Your task to perform on an android device: Go to settings Image 0: 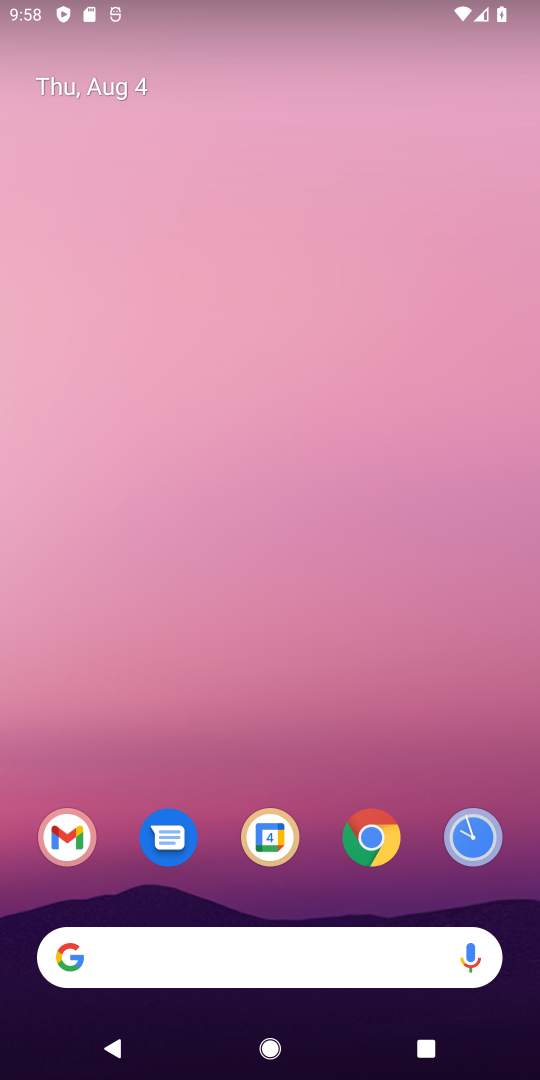
Step 0: drag from (426, 823) to (93, 42)
Your task to perform on an android device: Go to settings Image 1: 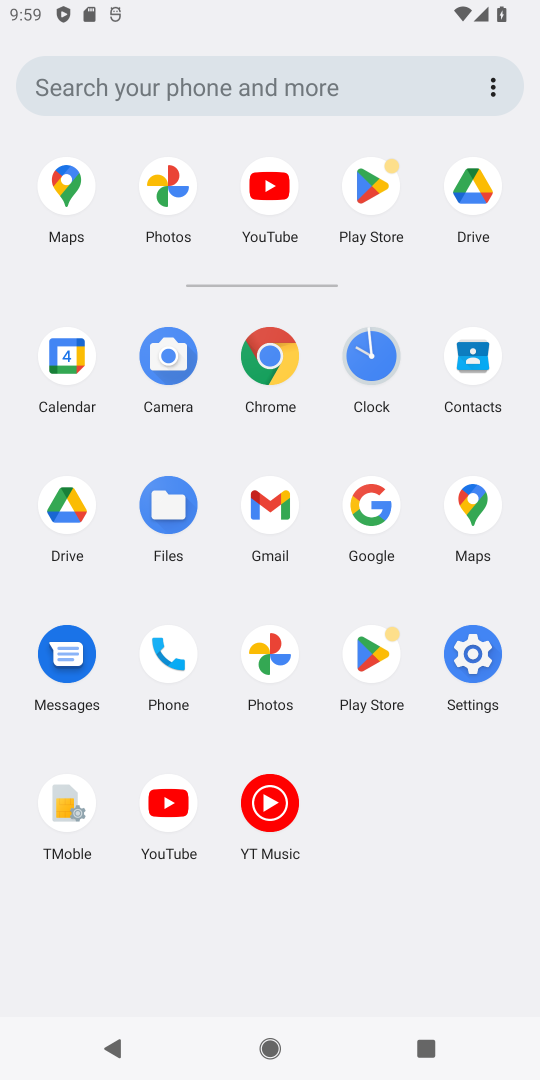
Step 1: click (492, 656)
Your task to perform on an android device: Go to settings Image 2: 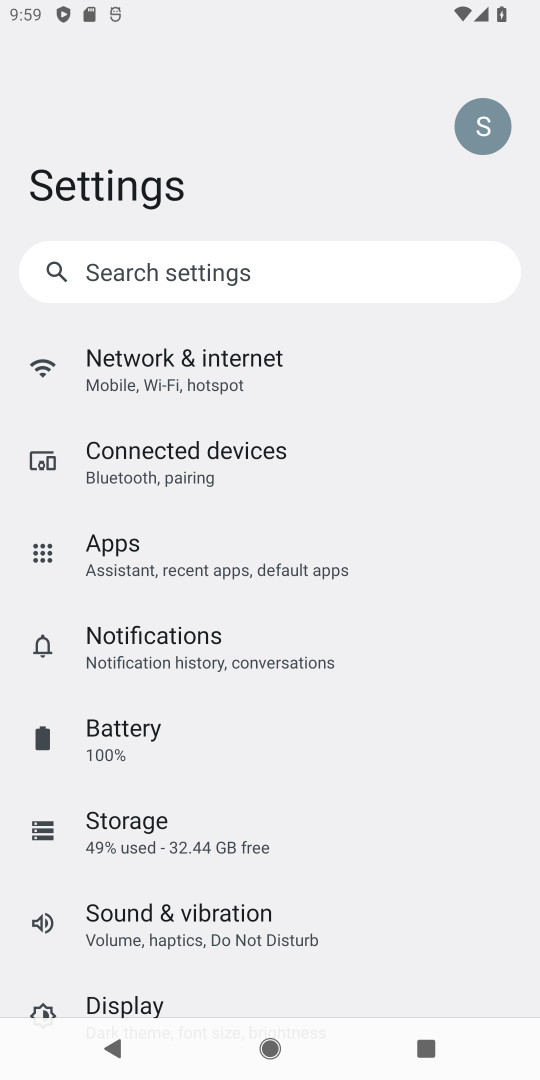
Step 2: task complete